Your task to perform on an android device: Open ESPN.com Image 0: 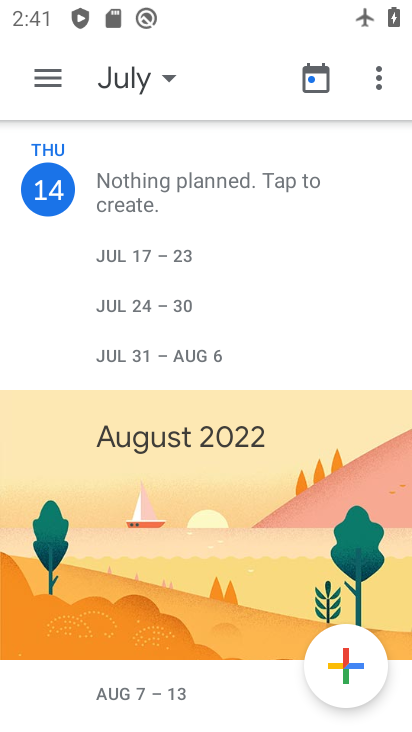
Step 0: press home button
Your task to perform on an android device: Open ESPN.com Image 1: 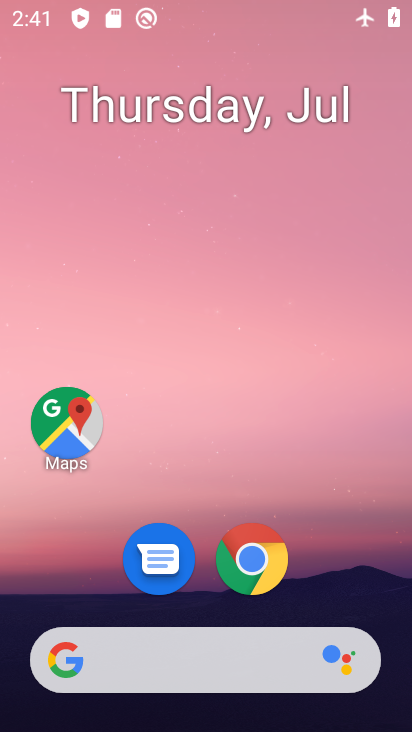
Step 1: drag from (222, 642) to (218, 68)
Your task to perform on an android device: Open ESPN.com Image 2: 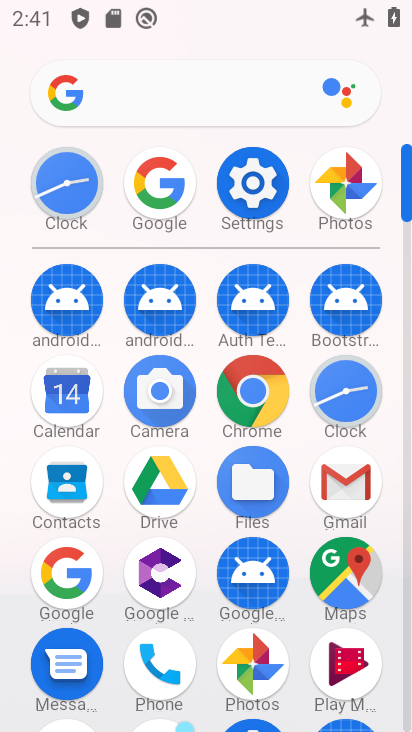
Step 2: click (253, 398)
Your task to perform on an android device: Open ESPN.com Image 3: 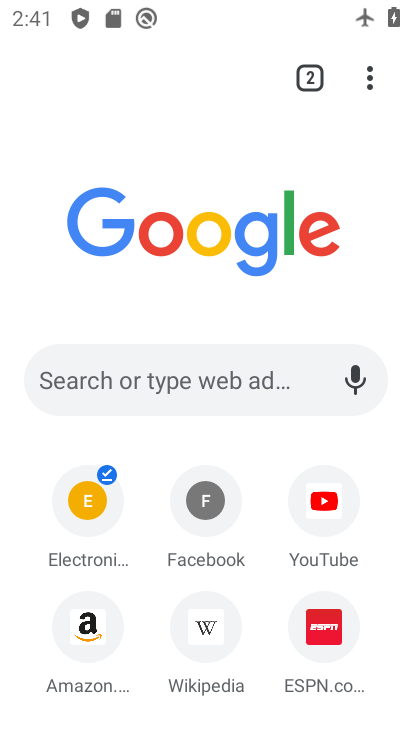
Step 3: click (333, 629)
Your task to perform on an android device: Open ESPN.com Image 4: 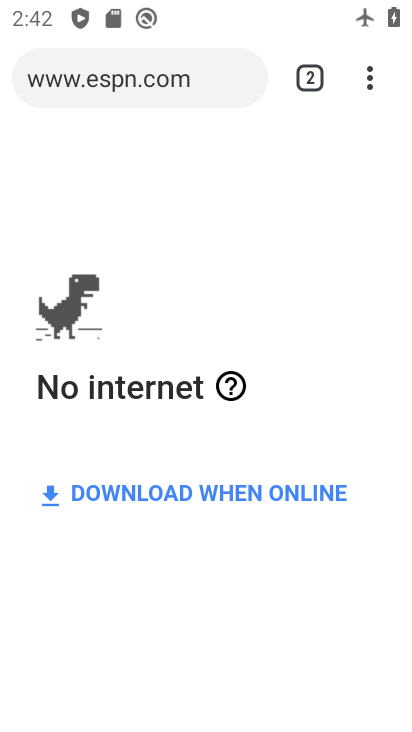
Step 4: task complete